Your task to perform on an android device: Open calendar and show me the second week of next month Image 0: 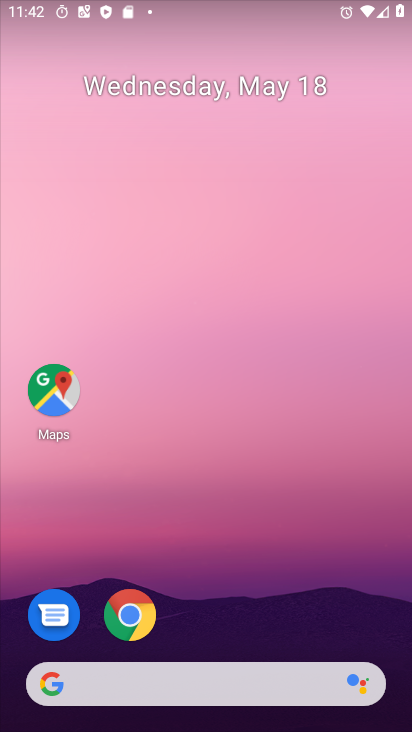
Step 0: drag from (23, 437) to (247, 96)
Your task to perform on an android device: Open calendar and show me the second week of next month Image 1: 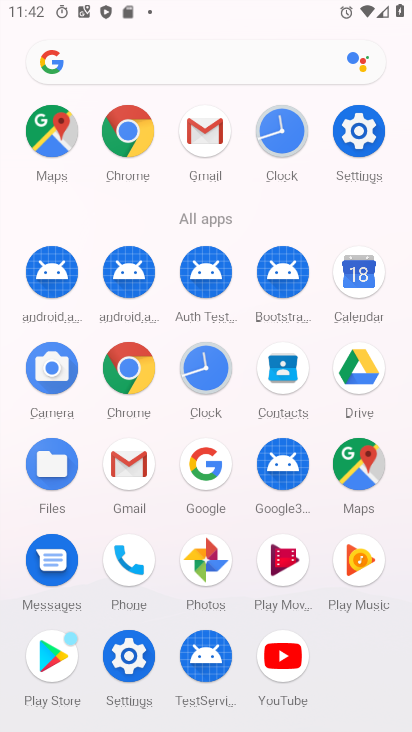
Step 1: click (358, 288)
Your task to perform on an android device: Open calendar and show me the second week of next month Image 2: 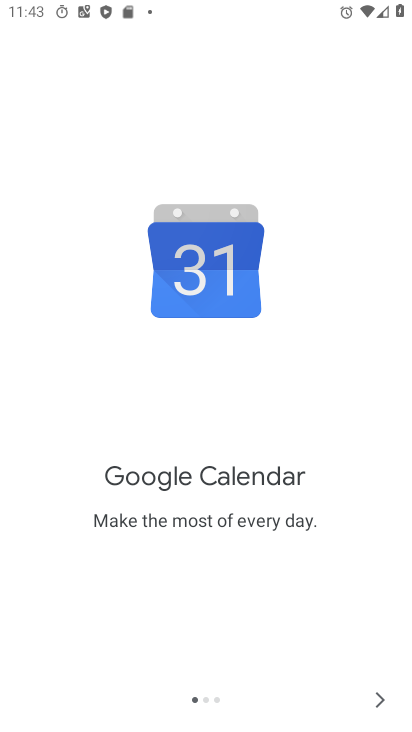
Step 2: click (385, 705)
Your task to perform on an android device: Open calendar and show me the second week of next month Image 3: 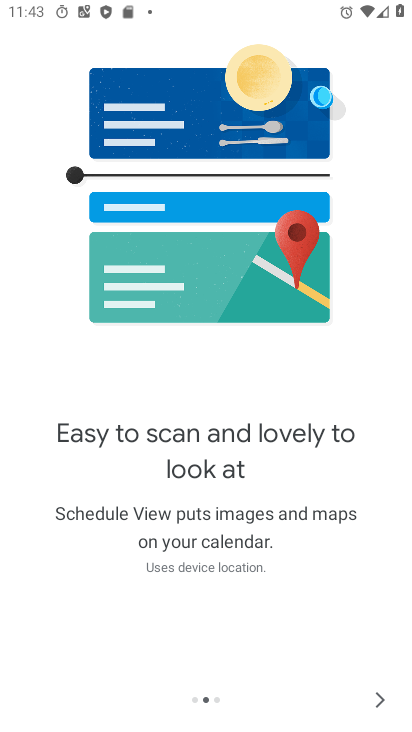
Step 3: click (385, 704)
Your task to perform on an android device: Open calendar and show me the second week of next month Image 4: 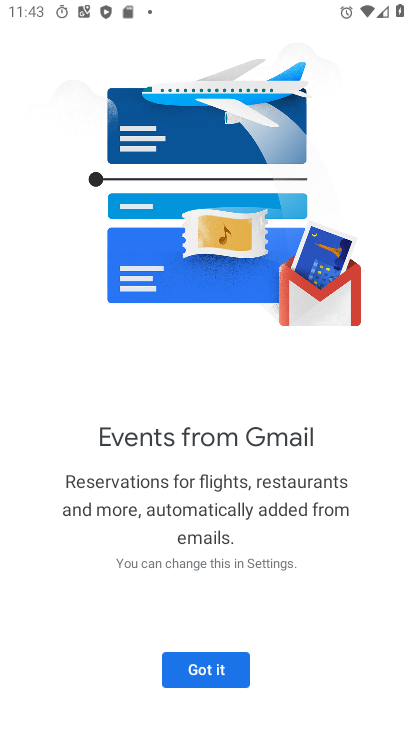
Step 4: click (227, 667)
Your task to perform on an android device: Open calendar and show me the second week of next month Image 5: 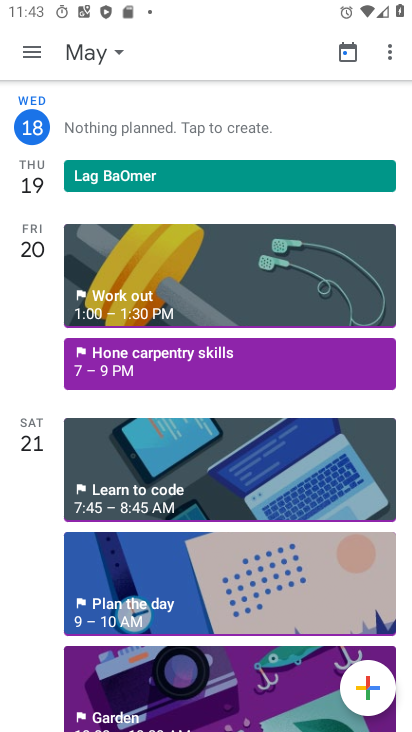
Step 5: click (64, 51)
Your task to perform on an android device: Open calendar and show me the second week of next month Image 6: 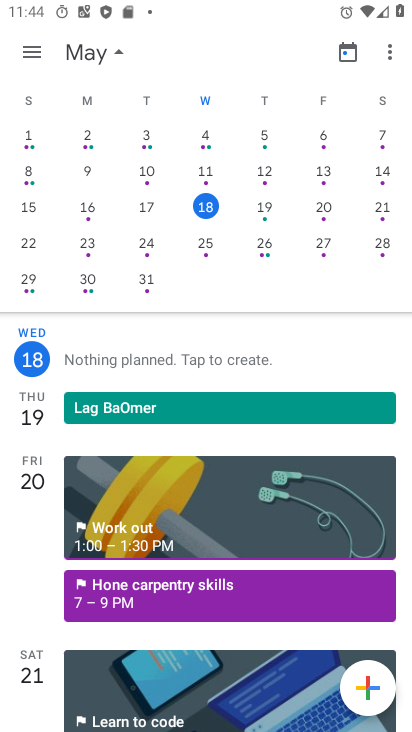
Step 6: drag from (355, 172) to (53, 234)
Your task to perform on an android device: Open calendar and show me the second week of next month Image 7: 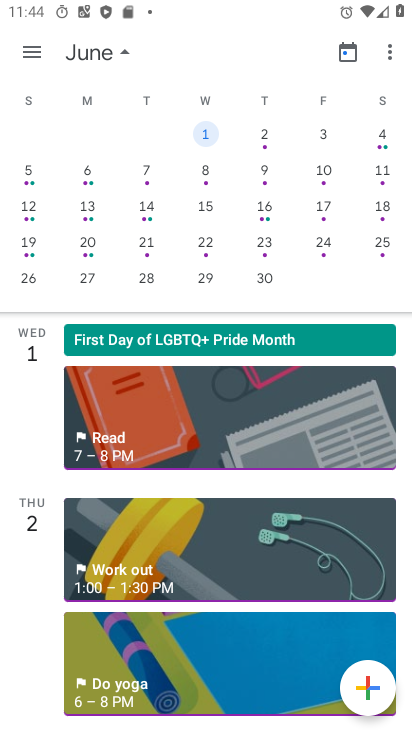
Step 7: click (74, 172)
Your task to perform on an android device: Open calendar and show me the second week of next month Image 8: 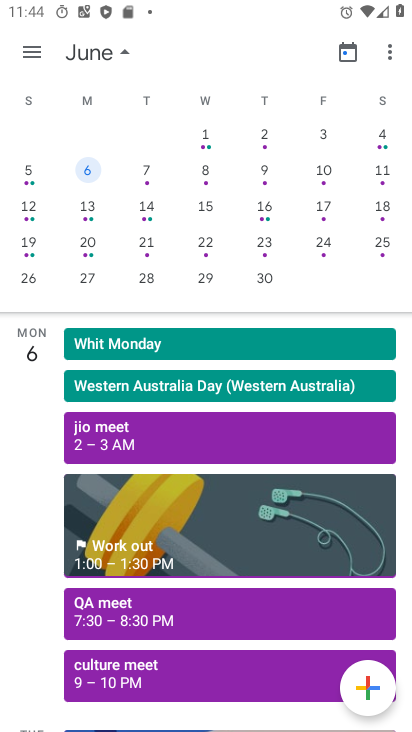
Step 8: click (150, 175)
Your task to perform on an android device: Open calendar and show me the second week of next month Image 9: 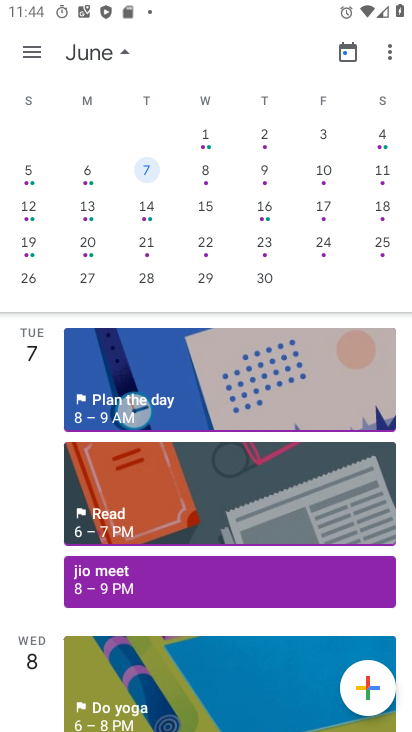
Step 9: click (229, 174)
Your task to perform on an android device: Open calendar and show me the second week of next month Image 10: 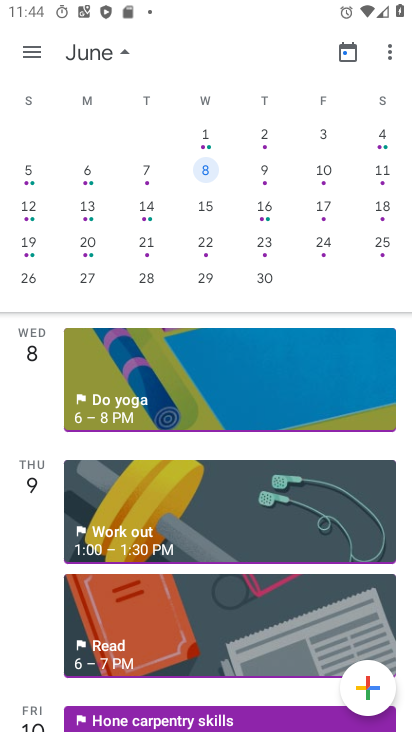
Step 10: click (260, 161)
Your task to perform on an android device: Open calendar and show me the second week of next month Image 11: 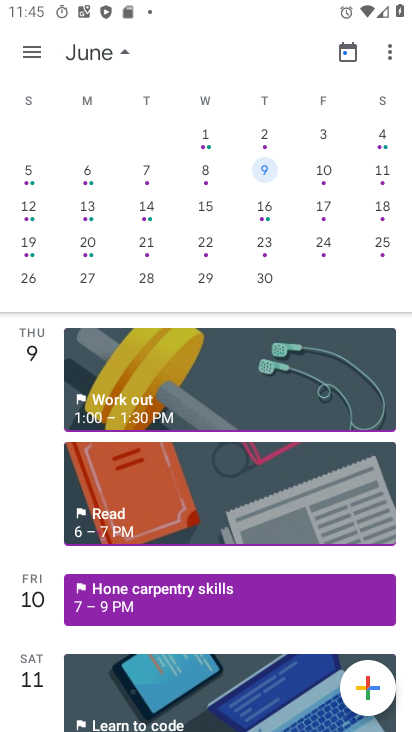
Step 11: task complete